Your task to perform on an android device: Open Google Chrome and click the shortcut for Amazon.com Image 0: 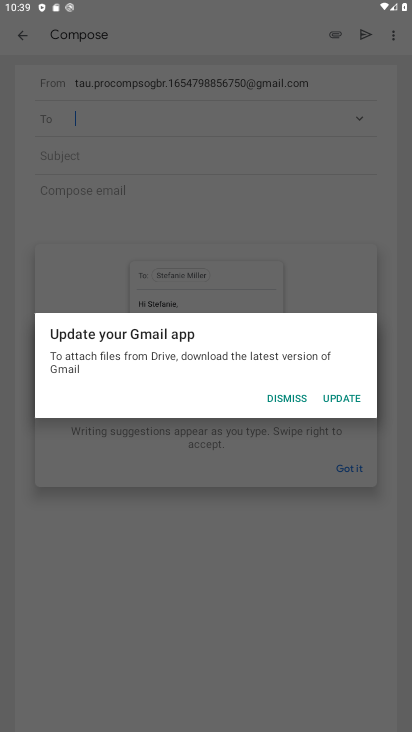
Step 0: press home button
Your task to perform on an android device: Open Google Chrome and click the shortcut for Amazon.com Image 1: 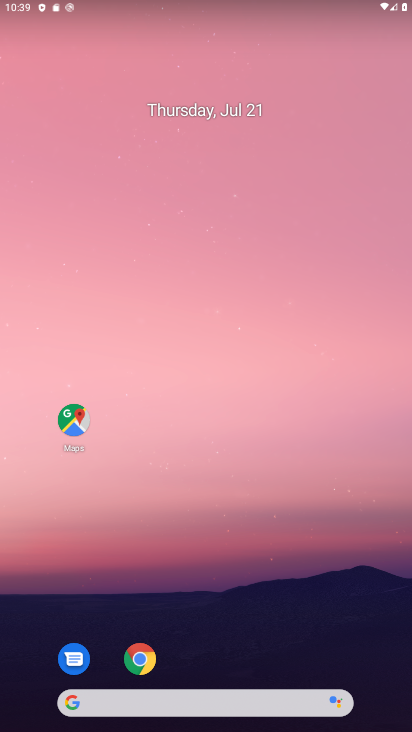
Step 1: click (143, 659)
Your task to perform on an android device: Open Google Chrome and click the shortcut for Amazon.com Image 2: 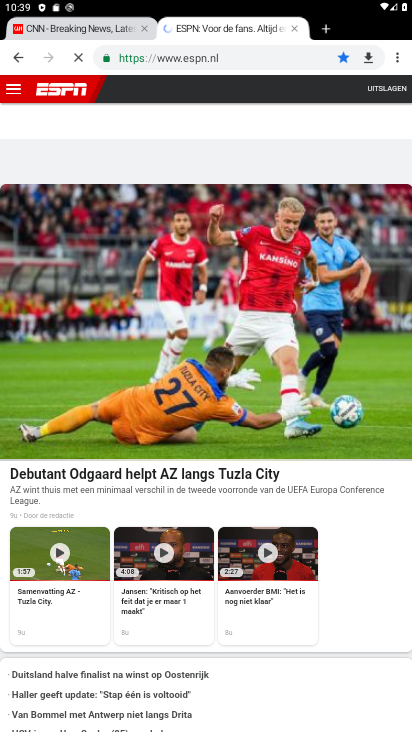
Step 2: click (397, 58)
Your task to perform on an android device: Open Google Chrome and click the shortcut for Amazon.com Image 3: 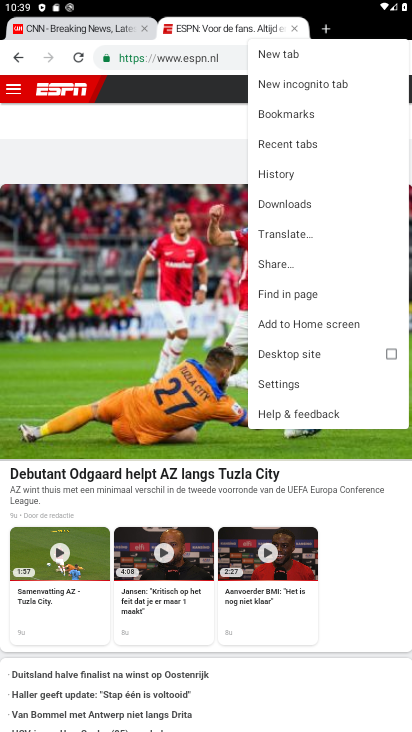
Step 3: click (290, 54)
Your task to perform on an android device: Open Google Chrome and click the shortcut for Amazon.com Image 4: 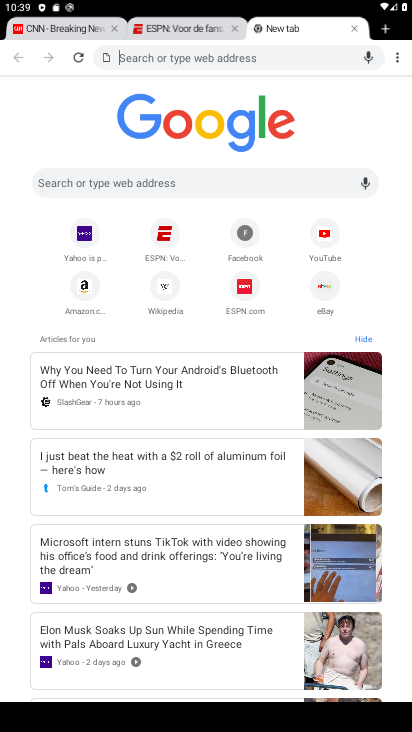
Step 4: click (79, 287)
Your task to perform on an android device: Open Google Chrome and click the shortcut for Amazon.com Image 5: 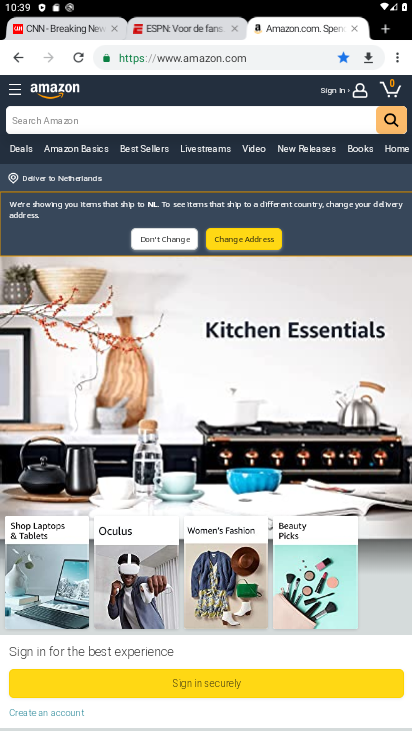
Step 5: task complete